Your task to perform on an android device: Go to Yahoo.com Image 0: 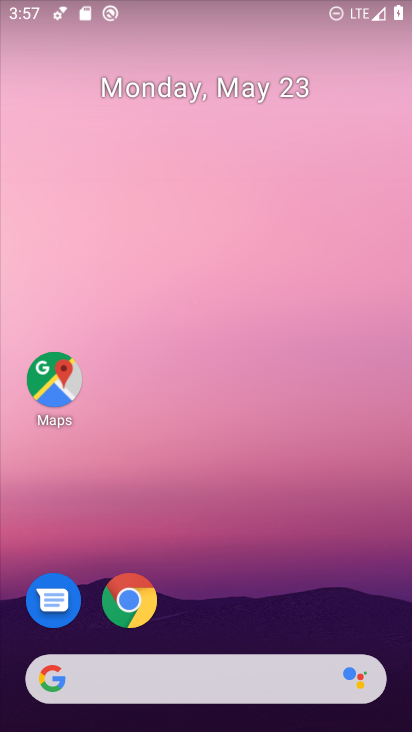
Step 0: click (125, 608)
Your task to perform on an android device: Go to Yahoo.com Image 1: 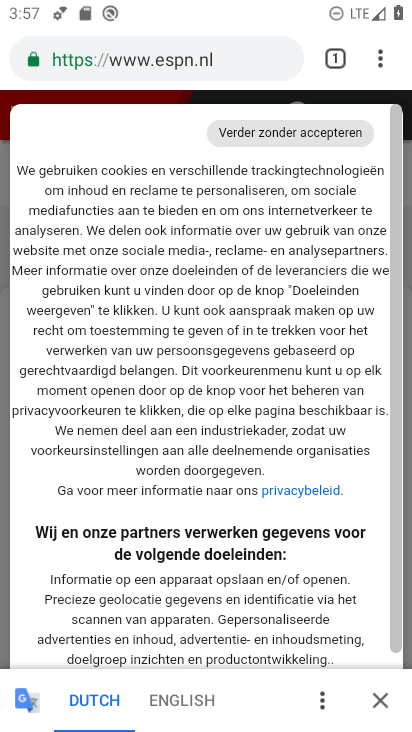
Step 1: click (154, 56)
Your task to perform on an android device: Go to Yahoo.com Image 2: 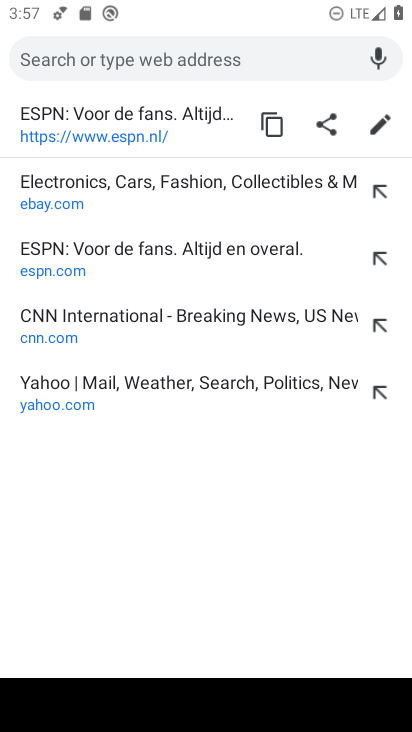
Step 2: click (23, 382)
Your task to perform on an android device: Go to Yahoo.com Image 3: 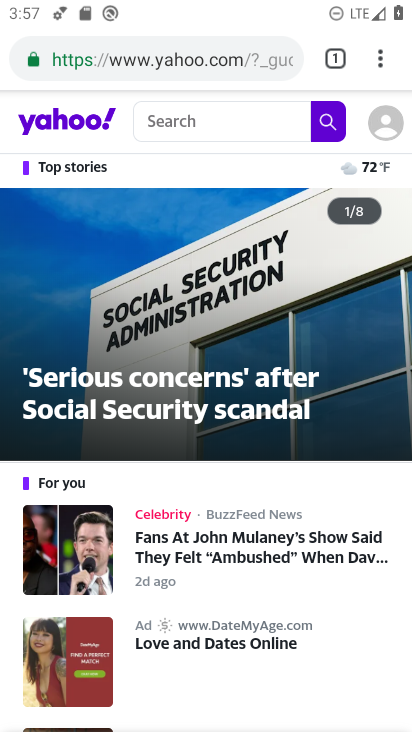
Step 3: task complete